Your task to perform on an android device: turn pop-ups on in chrome Image 0: 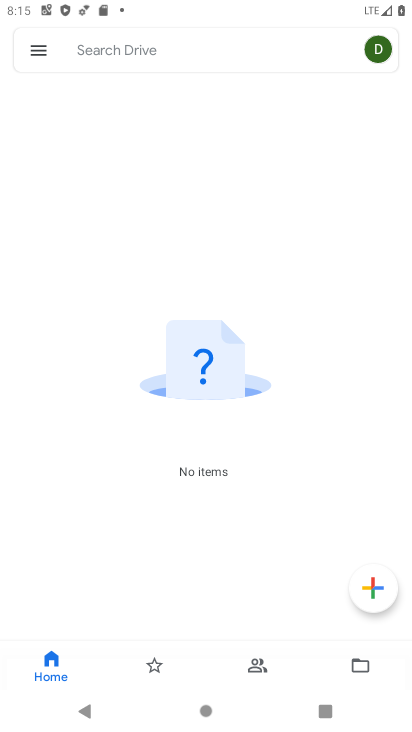
Step 0: press home button
Your task to perform on an android device: turn pop-ups on in chrome Image 1: 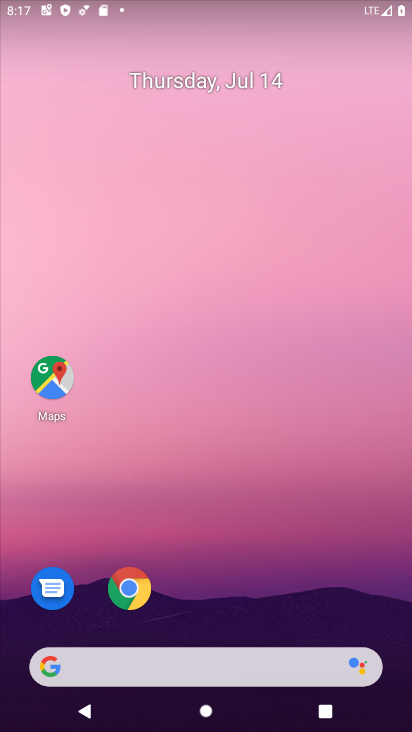
Step 1: drag from (383, 645) to (177, 27)
Your task to perform on an android device: turn pop-ups on in chrome Image 2: 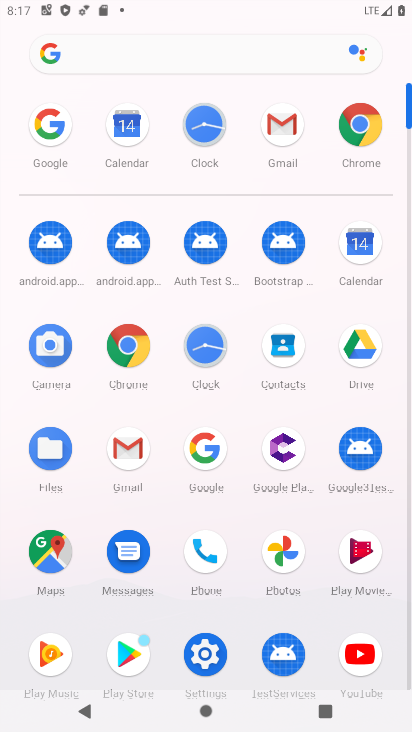
Step 2: click (340, 127)
Your task to perform on an android device: turn pop-ups on in chrome Image 3: 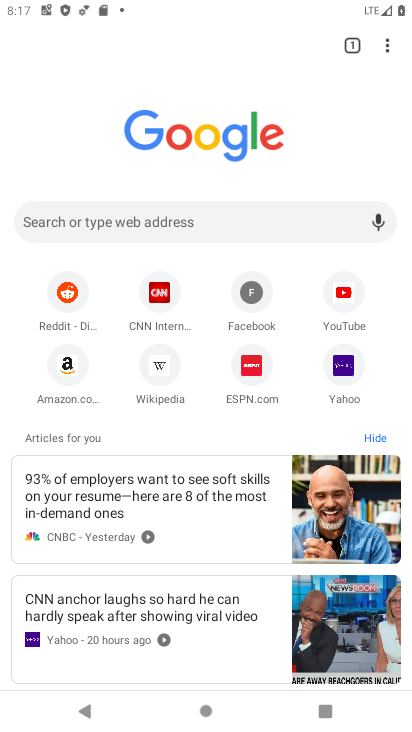
Step 3: click (384, 49)
Your task to perform on an android device: turn pop-ups on in chrome Image 4: 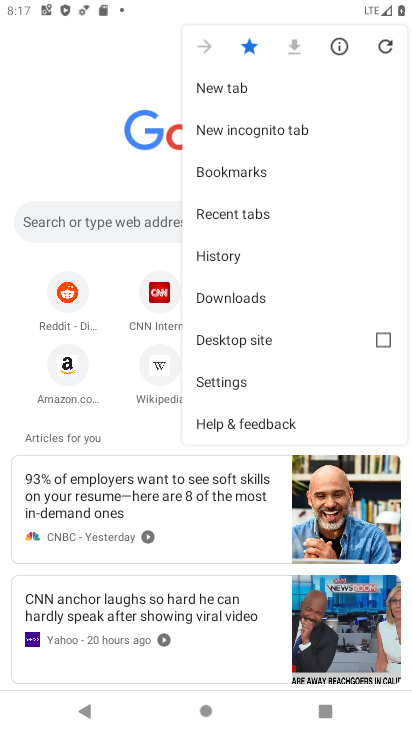
Step 4: click (228, 382)
Your task to perform on an android device: turn pop-ups on in chrome Image 5: 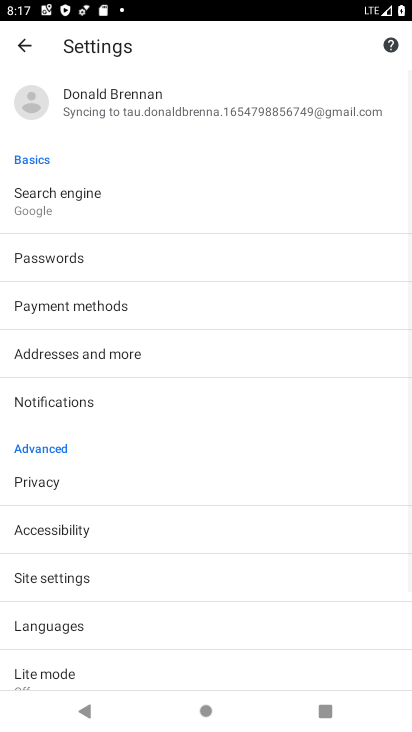
Step 5: click (52, 596)
Your task to perform on an android device: turn pop-ups on in chrome Image 6: 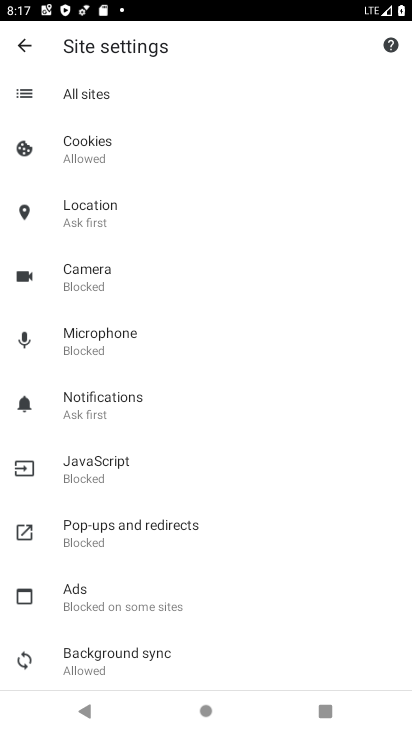
Step 6: click (95, 547)
Your task to perform on an android device: turn pop-ups on in chrome Image 7: 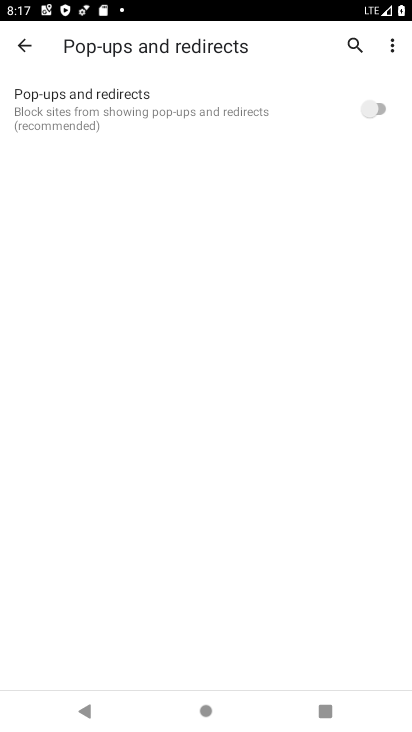
Step 7: click (364, 90)
Your task to perform on an android device: turn pop-ups on in chrome Image 8: 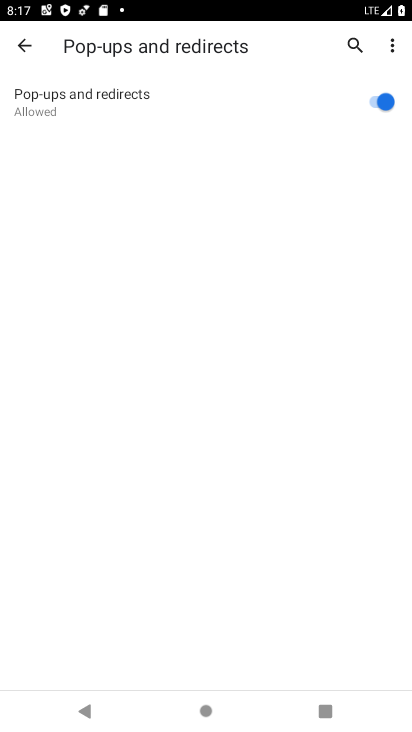
Step 8: task complete